Your task to perform on an android device: Add "razer nari" to the cart on bestbuy, then select checkout. Image 0: 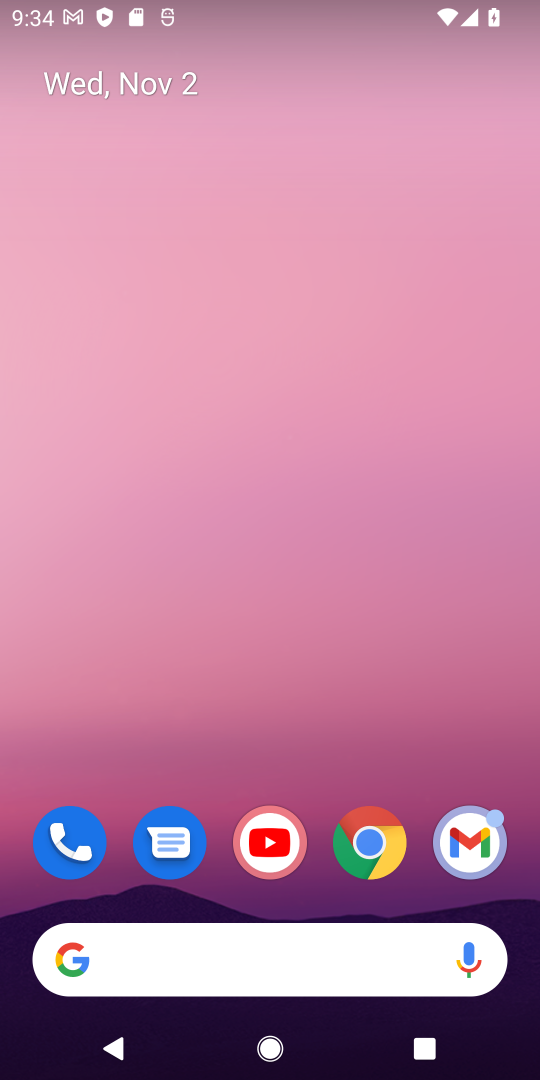
Step 0: drag from (139, 894) to (202, 186)
Your task to perform on an android device: Add "razer nari" to the cart on bestbuy, then select checkout. Image 1: 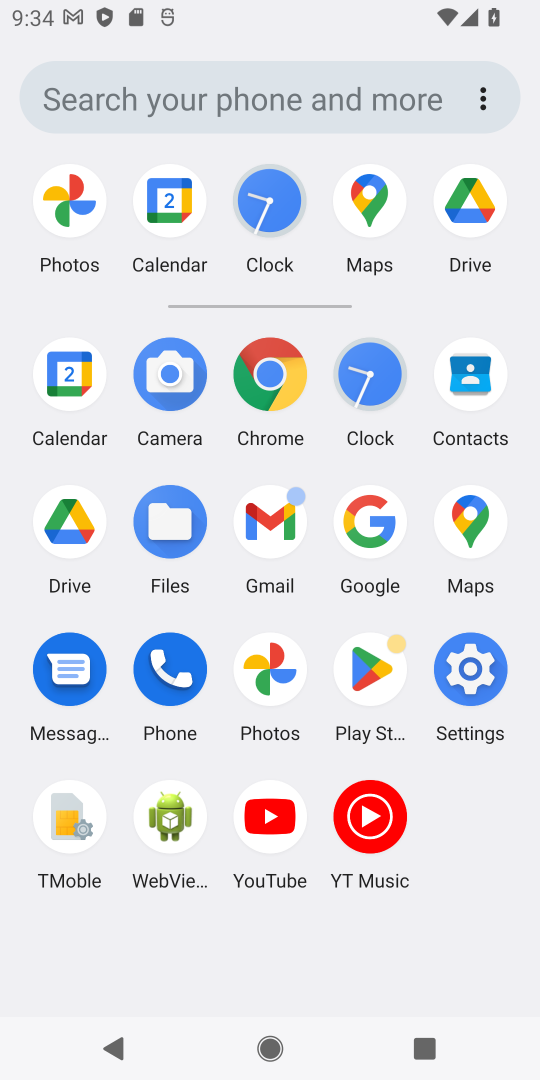
Step 1: click (391, 495)
Your task to perform on an android device: Add "razer nari" to the cart on bestbuy, then select checkout. Image 2: 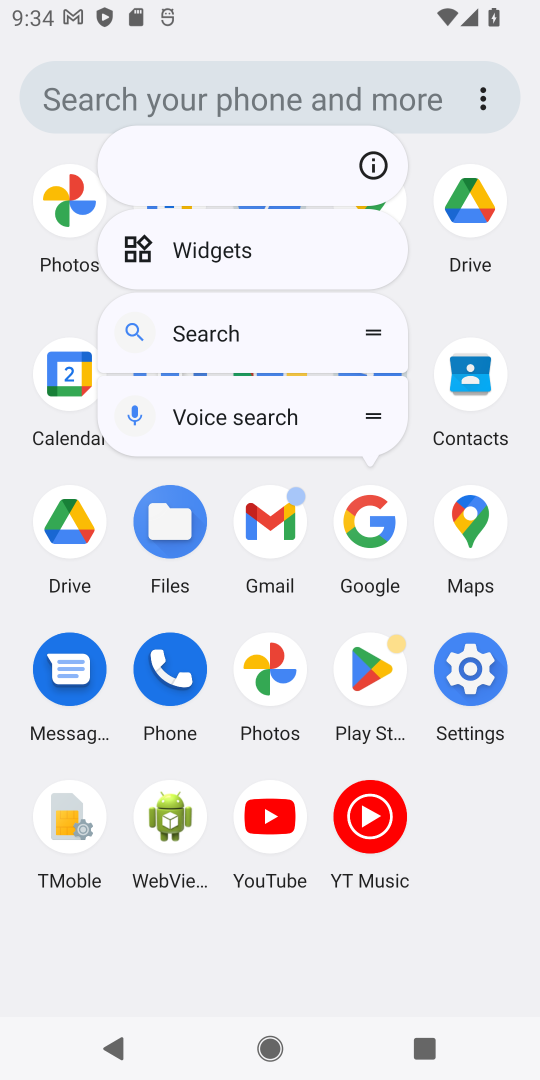
Step 2: click (355, 510)
Your task to perform on an android device: Add "razer nari" to the cart on bestbuy, then select checkout. Image 3: 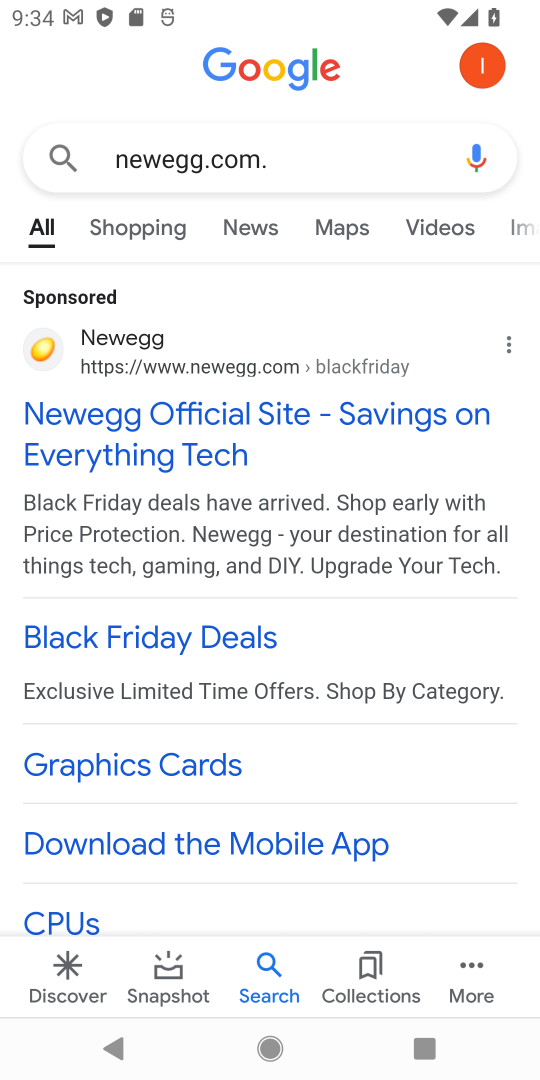
Step 3: click (195, 172)
Your task to perform on an android device: Add "razer nari" to the cart on bestbuy, then select checkout. Image 4: 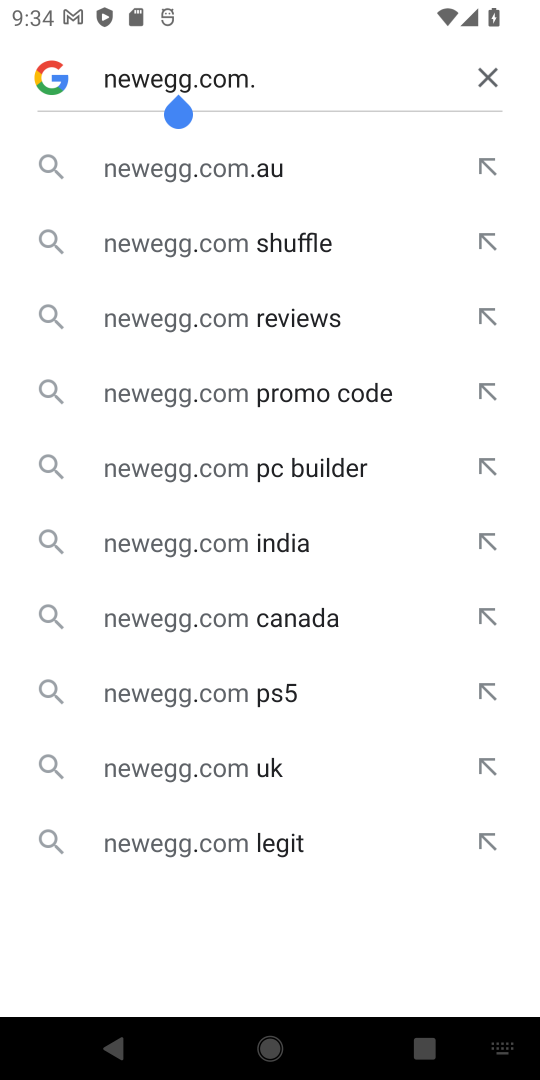
Step 4: click (498, 72)
Your task to perform on an android device: Add "razer nari" to the cart on bestbuy, then select checkout. Image 5: 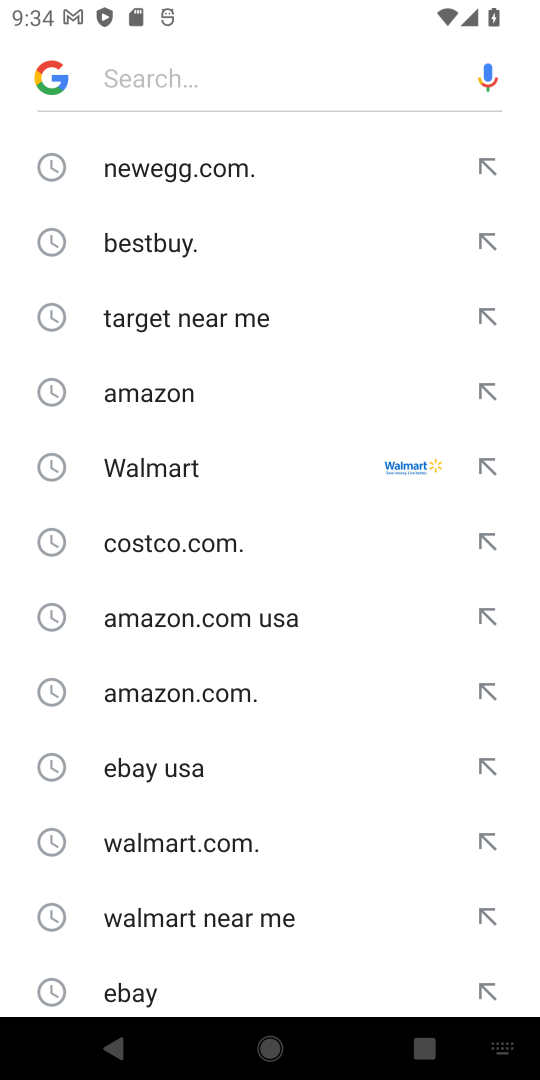
Step 5: click (123, 242)
Your task to perform on an android device: Add "razer nari" to the cart on bestbuy, then select checkout. Image 6: 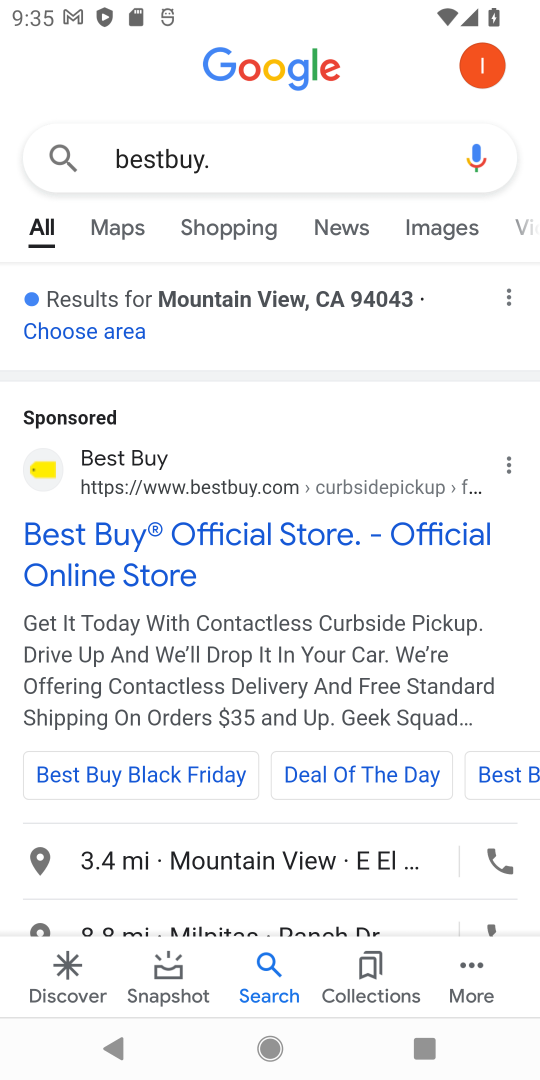
Step 6: click (39, 457)
Your task to perform on an android device: Add "razer nari" to the cart on bestbuy, then select checkout. Image 7: 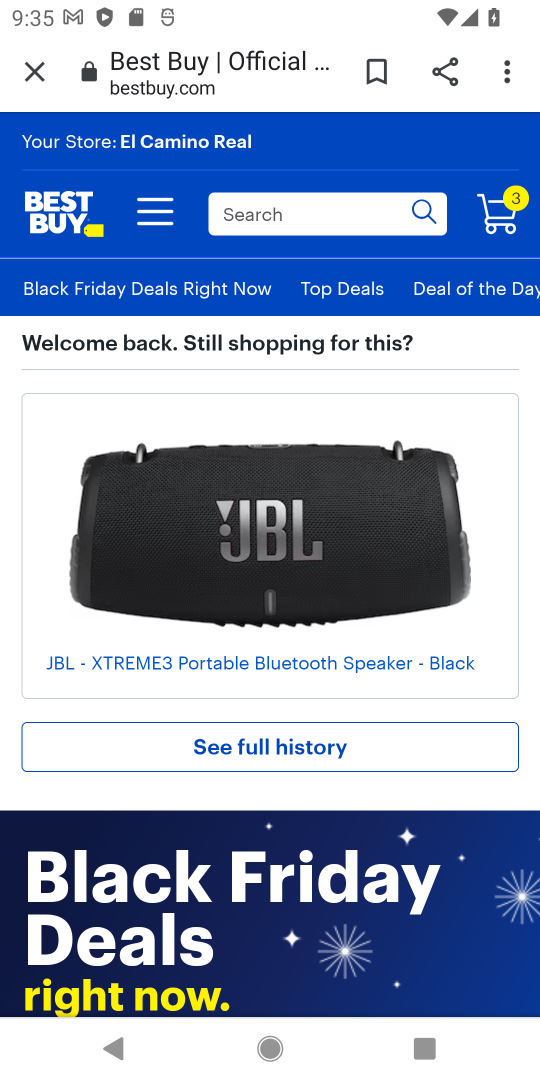
Step 7: click (324, 209)
Your task to perform on an android device: Add "razer nari" to the cart on bestbuy, then select checkout. Image 8: 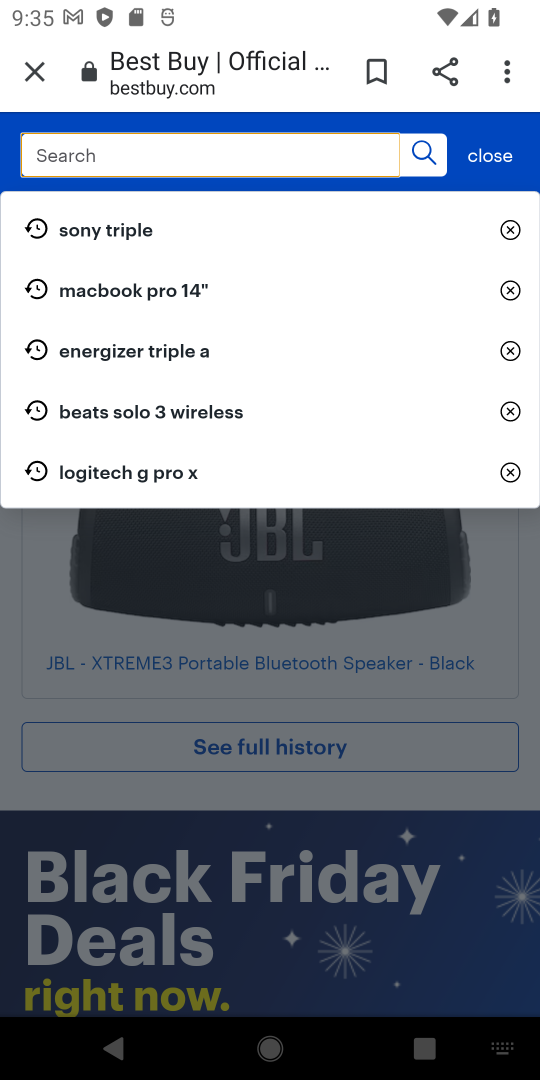
Step 8: click (106, 144)
Your task to perform on an android device: Add "razer nari" to the cart on bestbuy, then select checkout. Image 9: 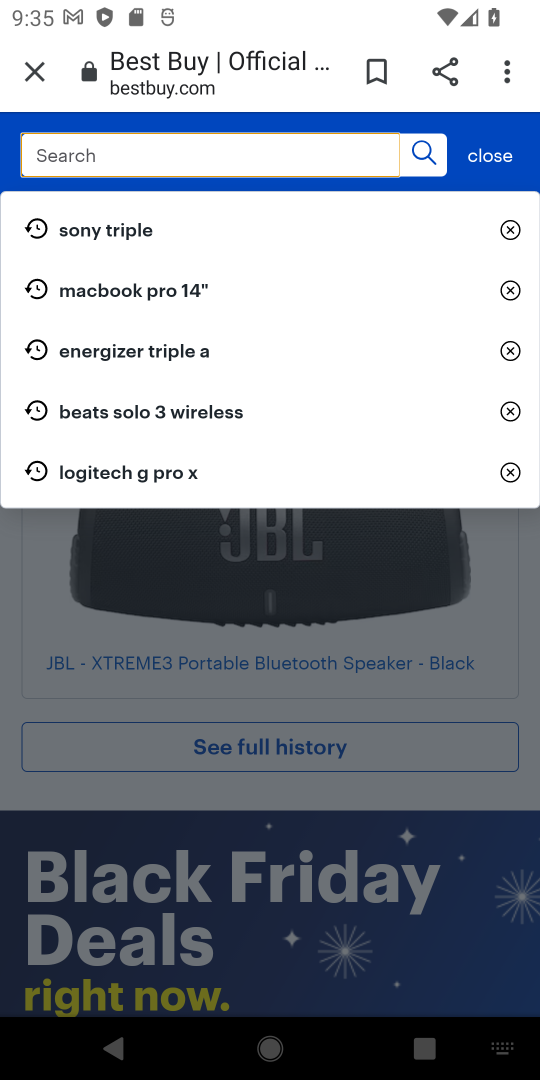
Step 9: type "razer nari "
Your task to perform on an android device: Add "razer nari" to the cart on bestbuy, then select checkout. Image 10: 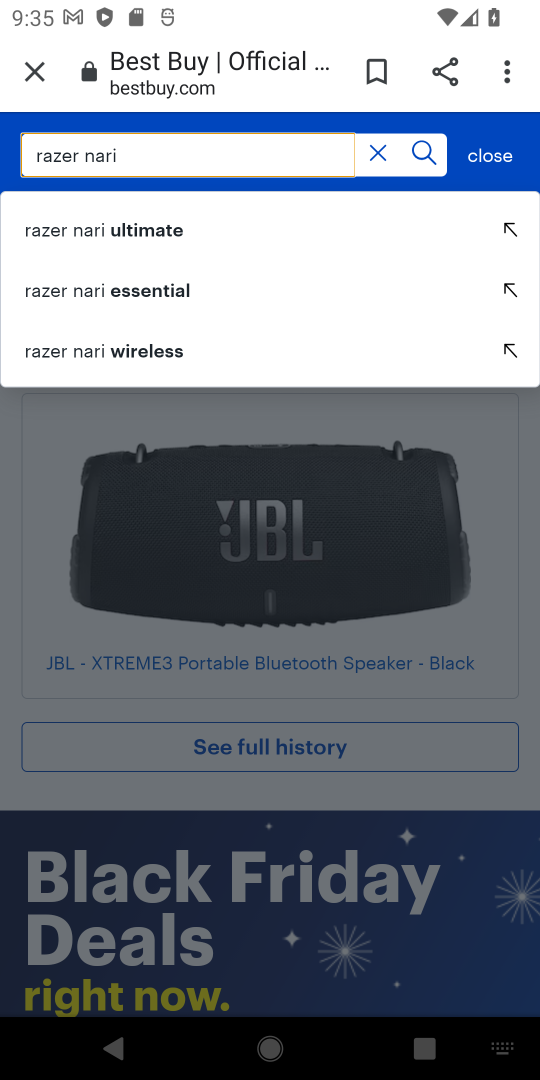
Step 10: click (87, 214)
Your task to perform on an android device: Add "razer nari" to the cart on bestbuy, then select checkout. Image 11: 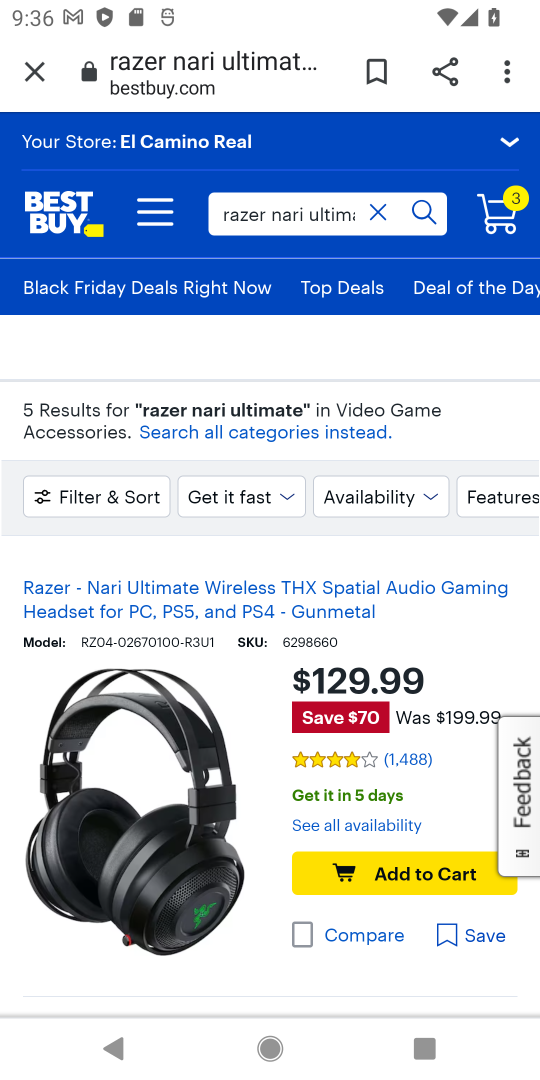
Step 11: click (358, 878)
Your task to perform on an android device: Add "razer nari" to the cart on bestbuy, then select checkout. Image 12: 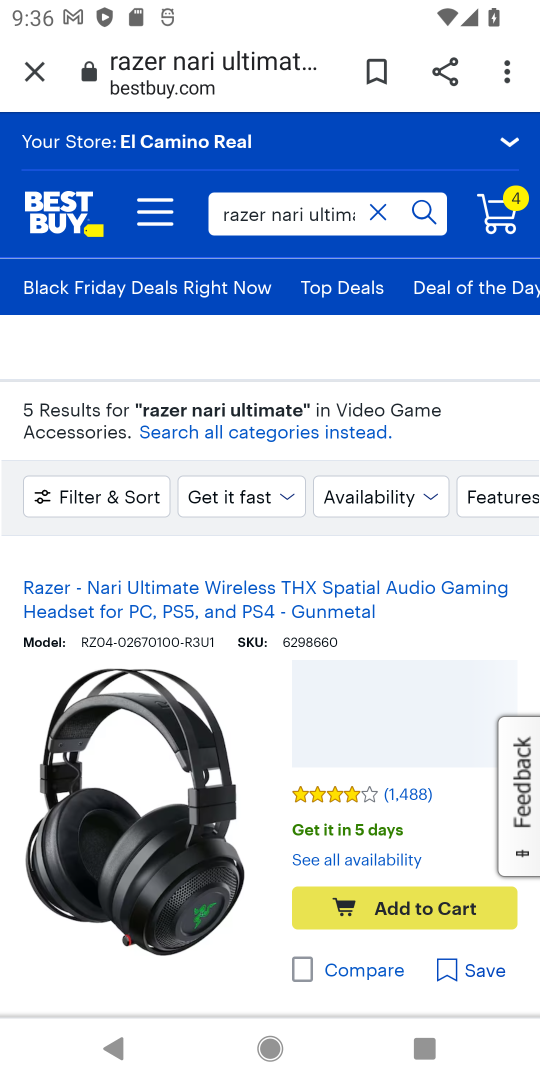
Step 12: task complete